Your task to perform on an android device: delete the emails in spam in the gmail app Image 0: 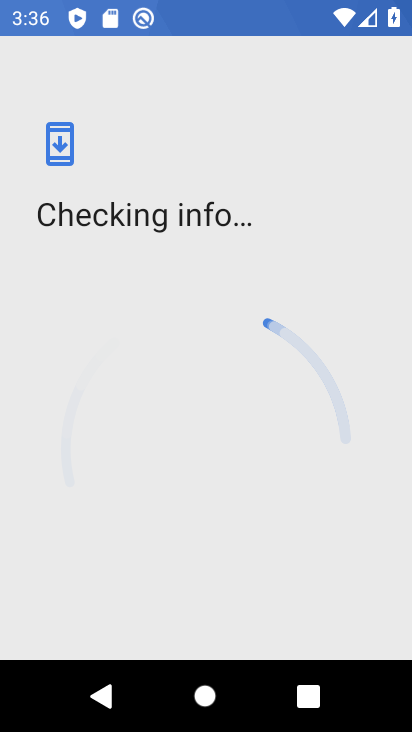
Step 0: press home button
Your task to perform on an android device: delete the emails in spam in the gmail app Image 1: 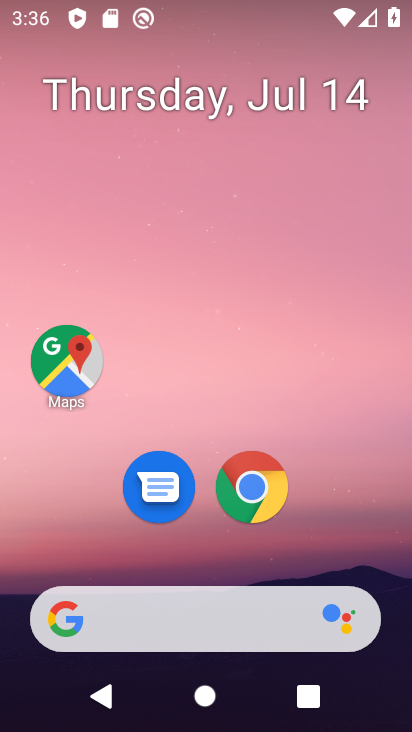
Step 1: drag from (226, 565) to (276, 184)
Your task to perform on an android device: delete the emails in spam in the gmail app Image 2: 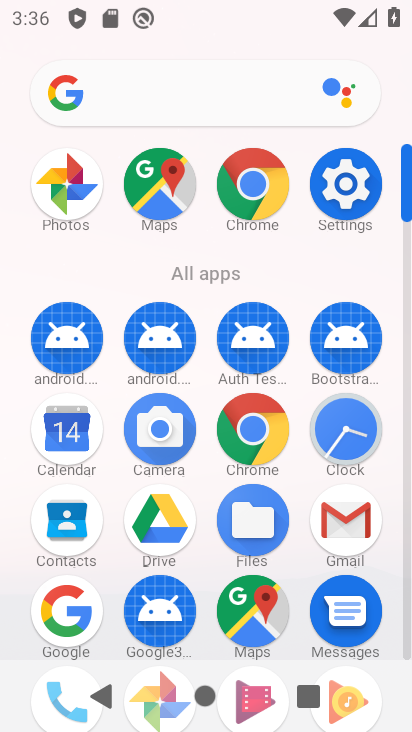
Step 2: click (343, 534)
Your task to perform on an android device: delete the emails in spam in the gmail app Image 3: 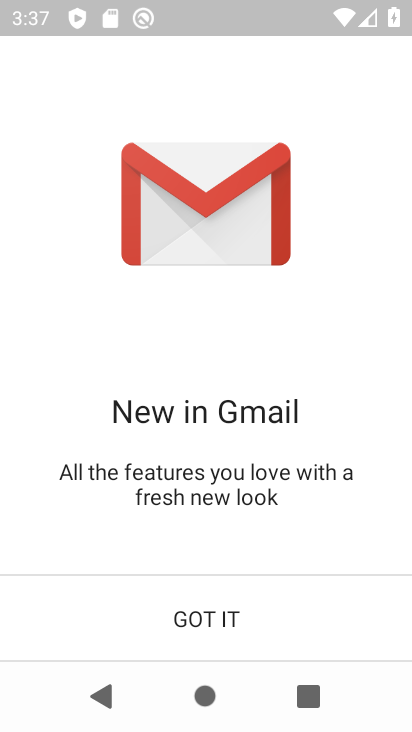
Step 3: click (278, 653)
Your task to perform on an android device: delete the emails in spam in the gmail app Image 4: 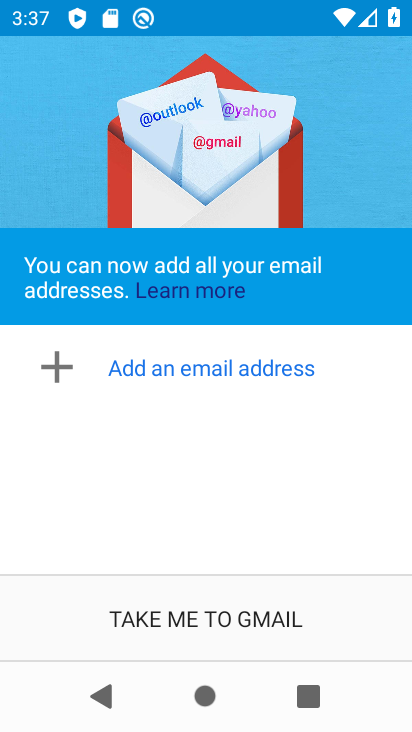
Step 4: click (214, 629)
Your task to perform on an android device: delete the emails in spam in the gmail app Image 5: 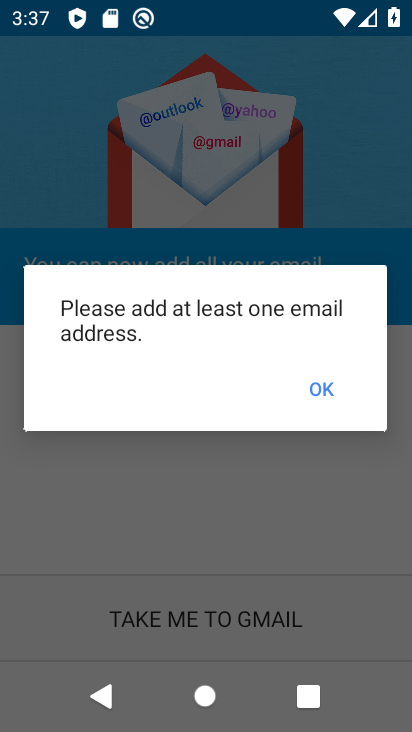
Step 5: click (328, 396)
Your task to perform on an android device: delete the emails in spam in the gmail app Image 6: 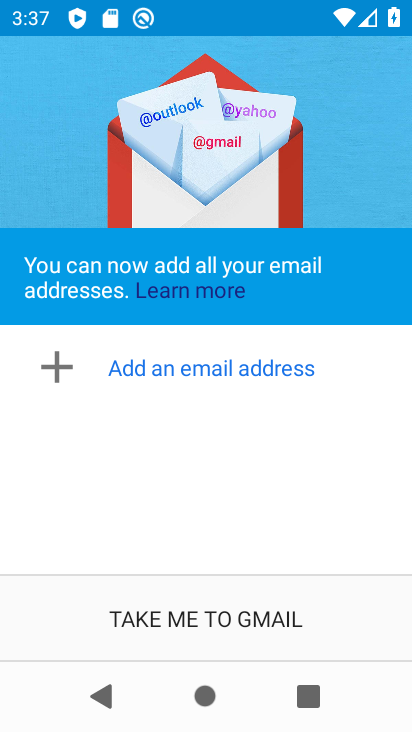
Step 6: click (228, 635)
Your task to perform on an android device: delete the emails in spam in the gmail app Image 7: 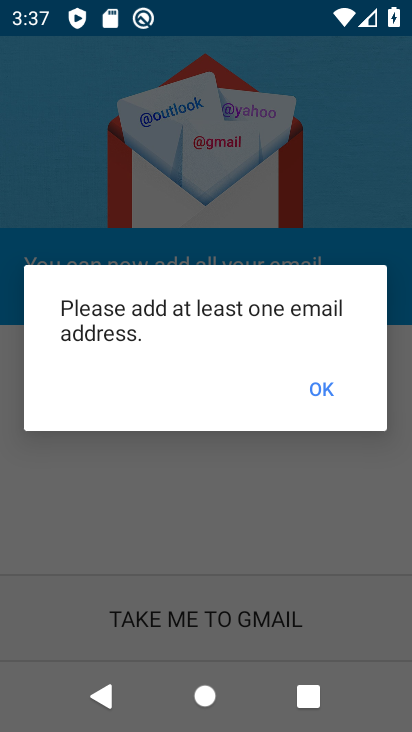
Step 7: click (328, 382)
Your task to perform on an android device: delete the emails in spam in the gmail app Image 8: 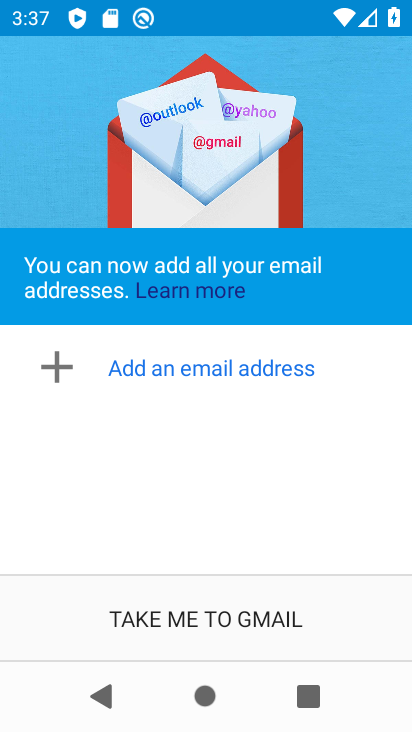
Step 8: task complete